Your task to perform on an android device: clear all cookies in the chrome app Image 0: 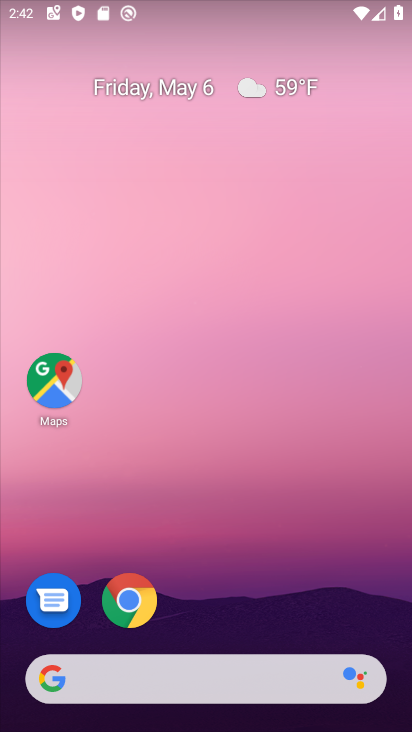
Step 0: click (139, 595)
Your task to perform on an android device: clear all cookies in the chrome app Image 1: 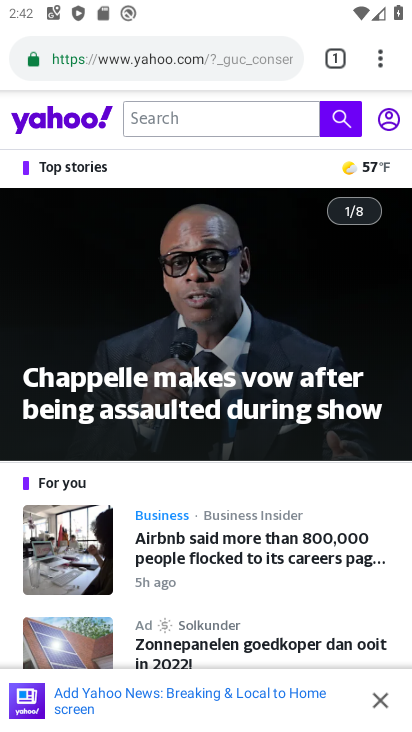
Step 1: click (368, 56)
Your task to perform on an android device: clear all cookies in the chrome app Image 2: 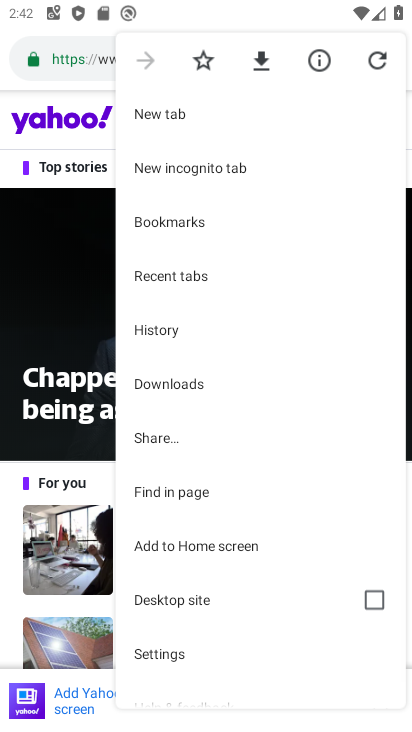
Step 2: click (165, 653)
Your task to perform on an android device: clear all cookies in the chrome app Image 3: 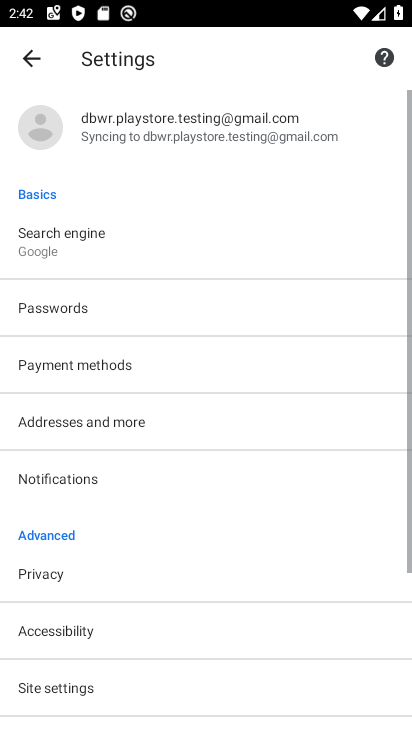
Step 3: drag from (171, 570) to (165, 251)
Your task to perform on an android device: clear all cookies in the chrome app Image 4: 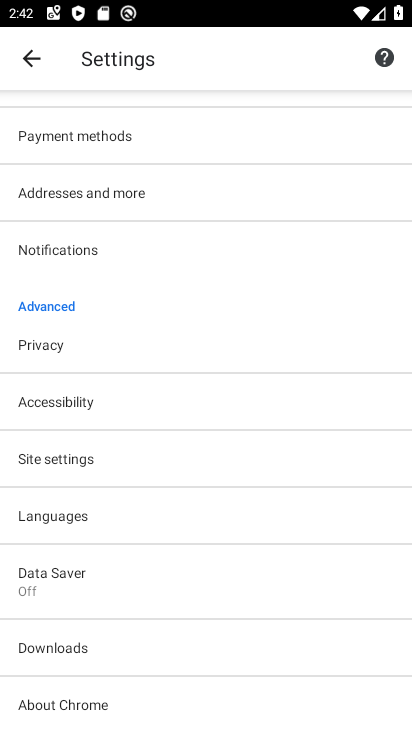
Step 4: click (49, 352)
Your task to perform on an android device: clear all cookies in the chrome app Image 5: 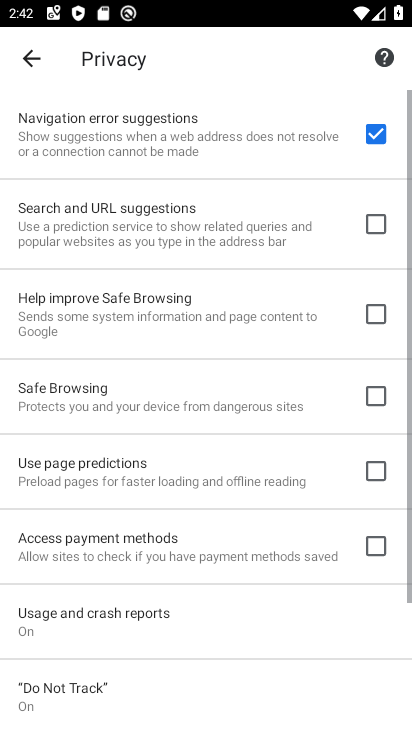
Step 5: drag from (230, 589) to (246, 5)
Your task to perform on an android device: clear all cookies in the chrome app Image 6: 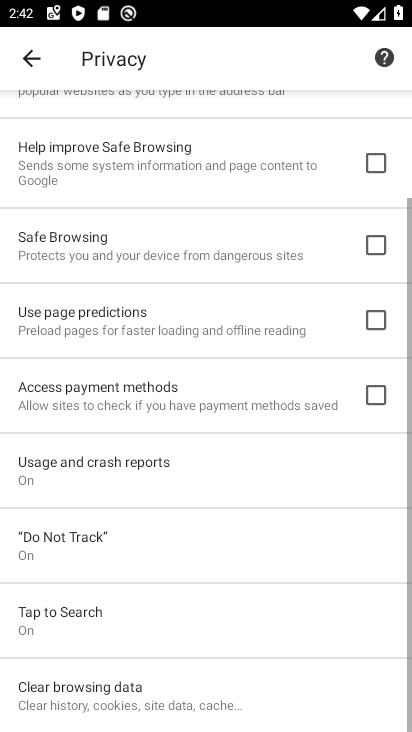
Step 6: click (120, 702)
Your task to perform on an android device: clear all cookies in the chrome app Image 7: 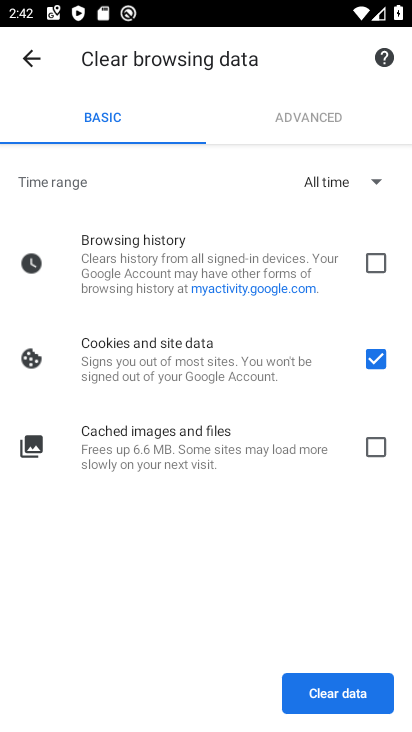
Step 7: drag from (369, 257) to (161, 660)
Your task to perform on an android device: clear all cookies in the chrome app Image 8: 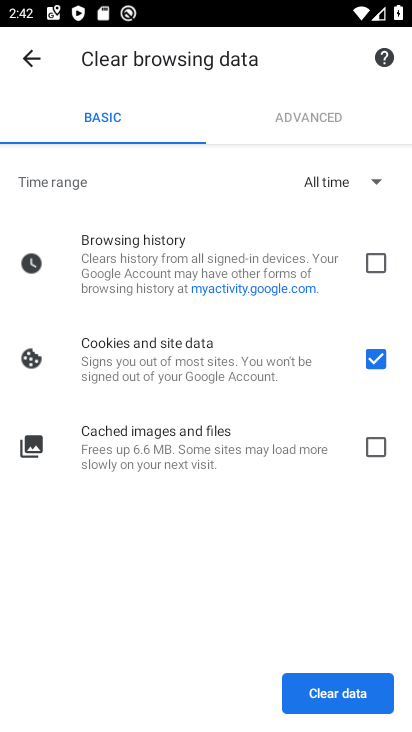
Step 8: click (335, 686)
Your task to perform on an android device: clear all cookies in the chrome app Image 9: 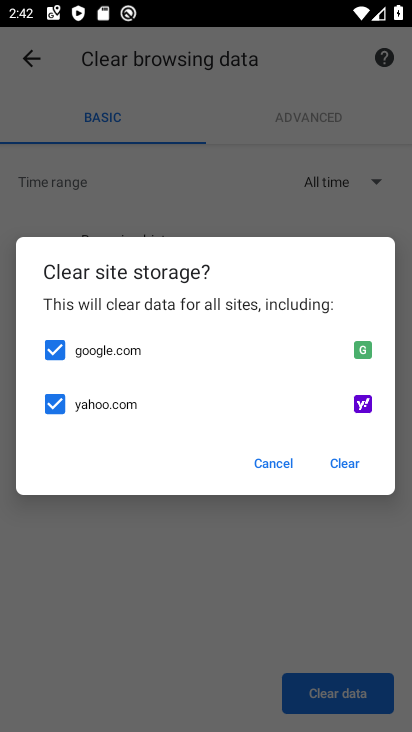
Step 9: click (342, 471)
Your task to perform on an android device: clear all cookies in the chrome app Image 10: 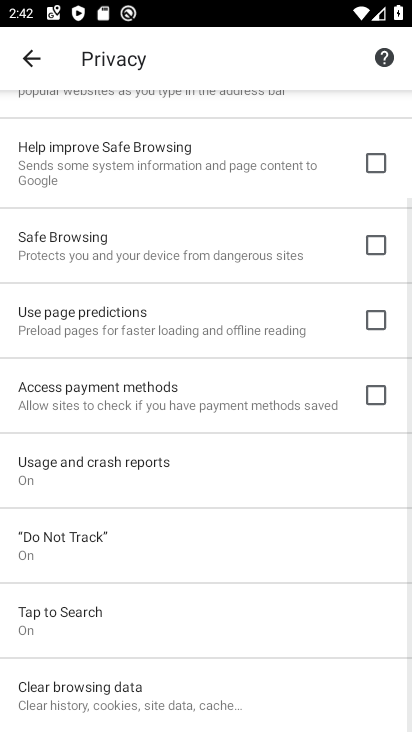
Step 10: task complete